Your task to perform on an android device: View the shopping cart on target. Search for "logitech g910" on target, select the first entry, and add it to the cart. Image 0: 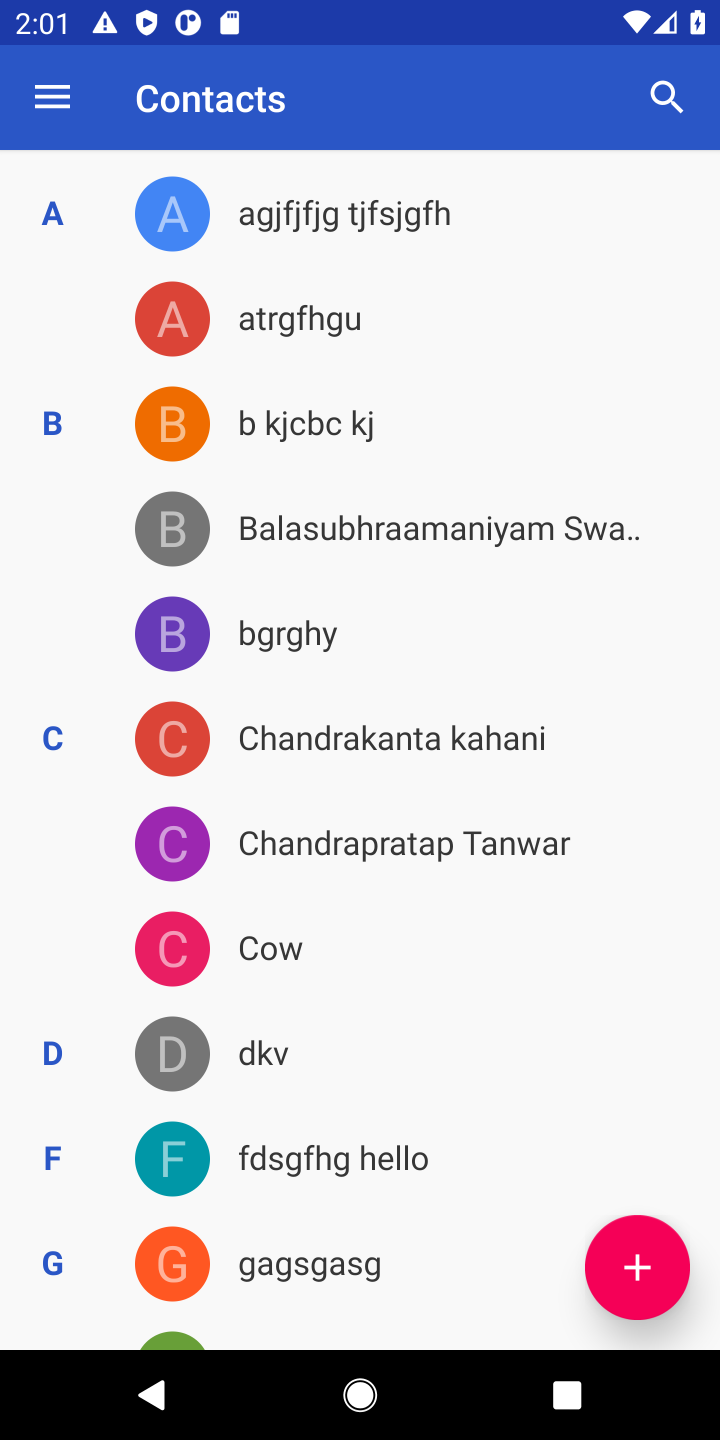
Step 0: press home button
Your task to perform on an android device: View the shopping cart on target. Search for "logitech g910" on target, select the first entry, and add it to the cart. Image 1: 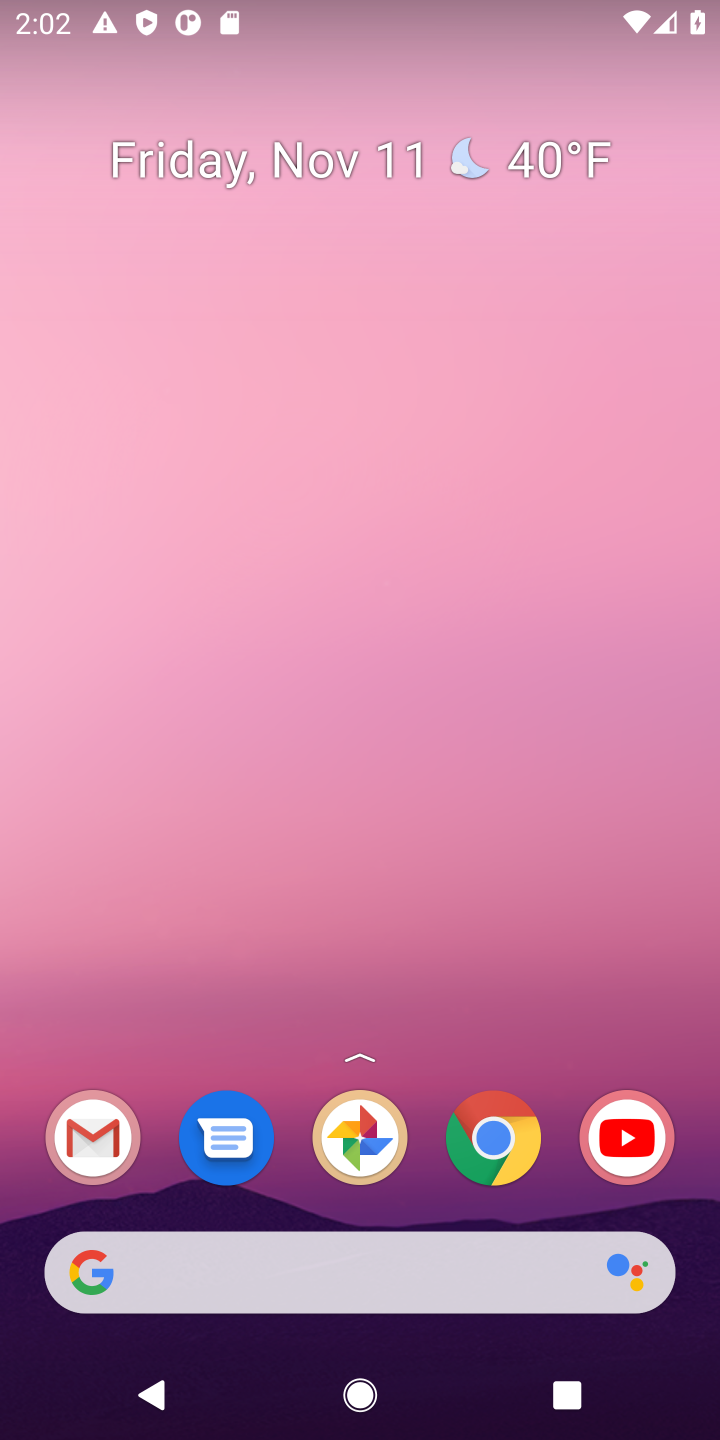
Step 1: click (472, 1145)
Your task to perform on an android device: View the shopping cart on target. Search for "logitech g910" on target, select the first entry, and add it to the cart. Image 2: 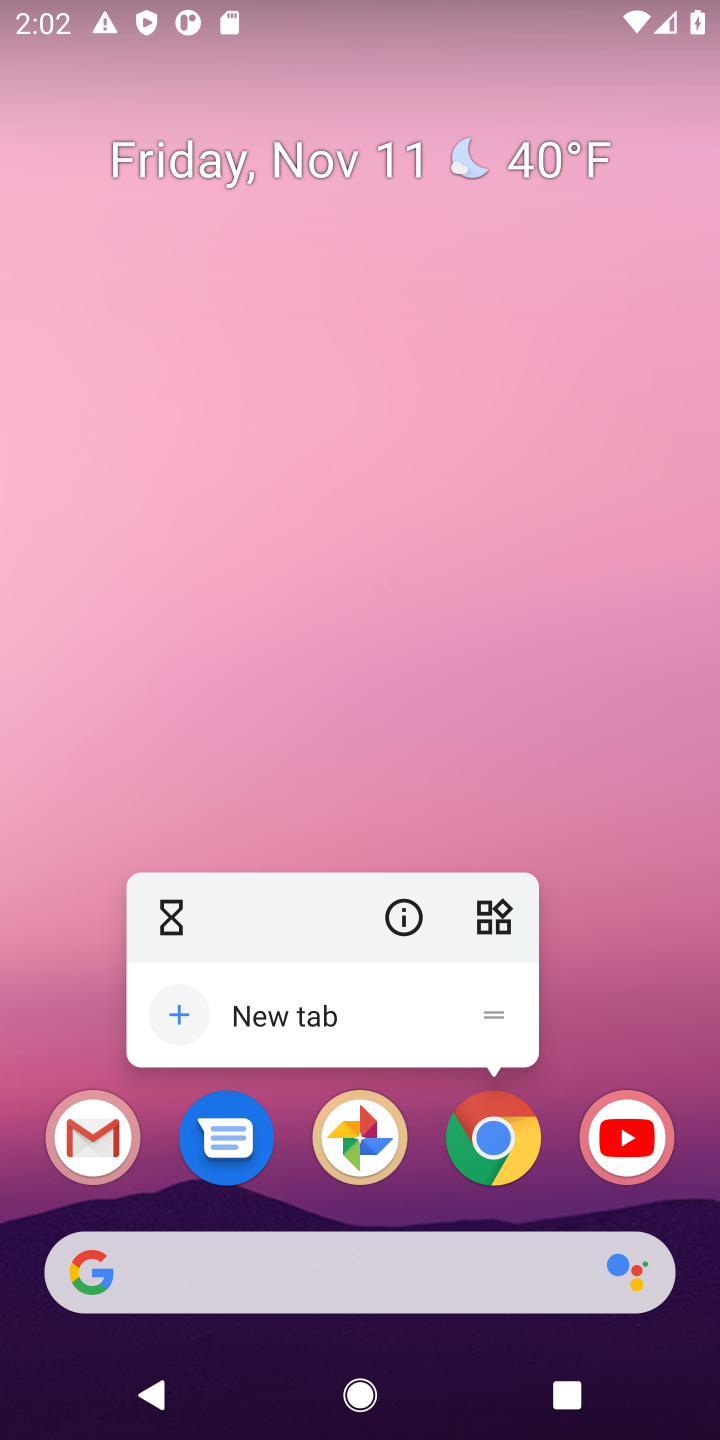
Step 2: click (472, 1145)
Your task to perform on an android device: View the shopping cart on target. Search for "logitech g910" on target, select the first entry, and add it to the cart. Image 3: 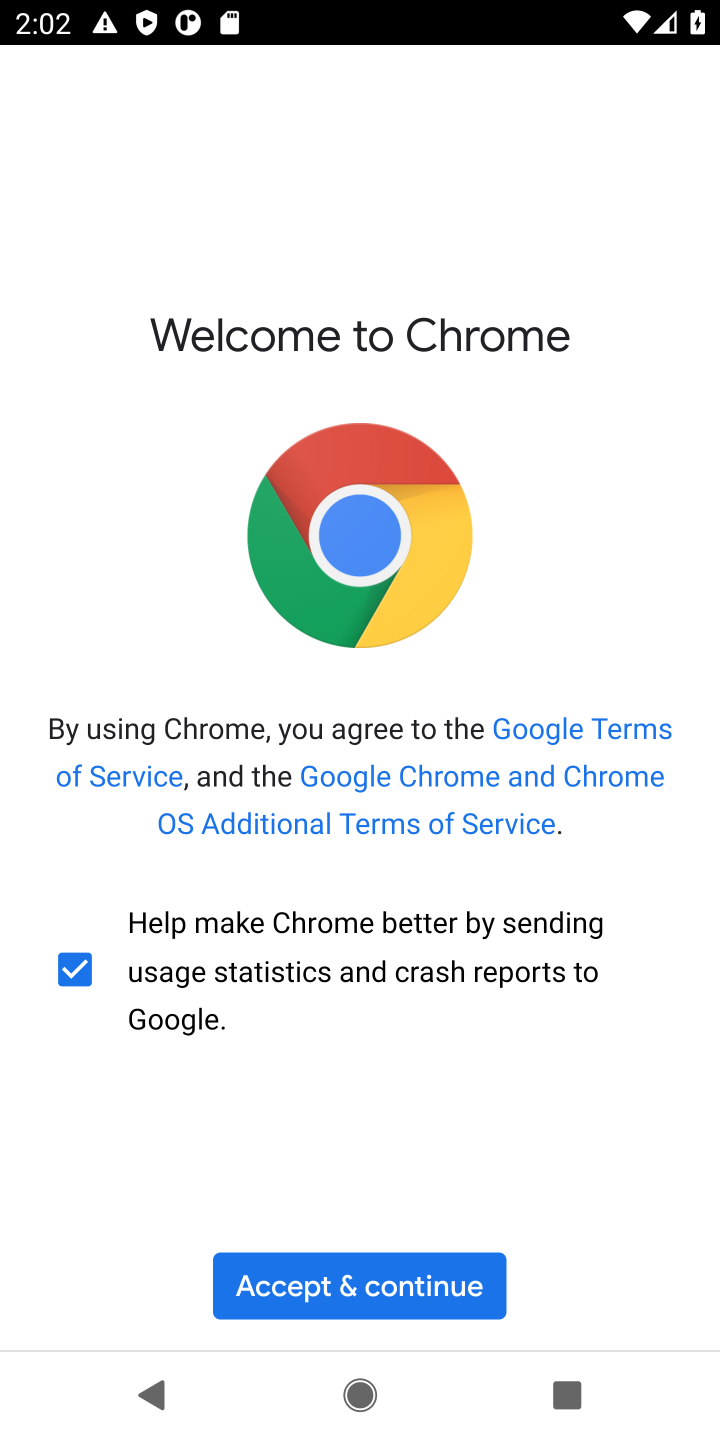
Step 3: click (472, 1145)
Your task to perform on an android device: View the shopping cart on target. Search for "logitech g910" on target, select the first entry, and add it to the cart. Image 4: 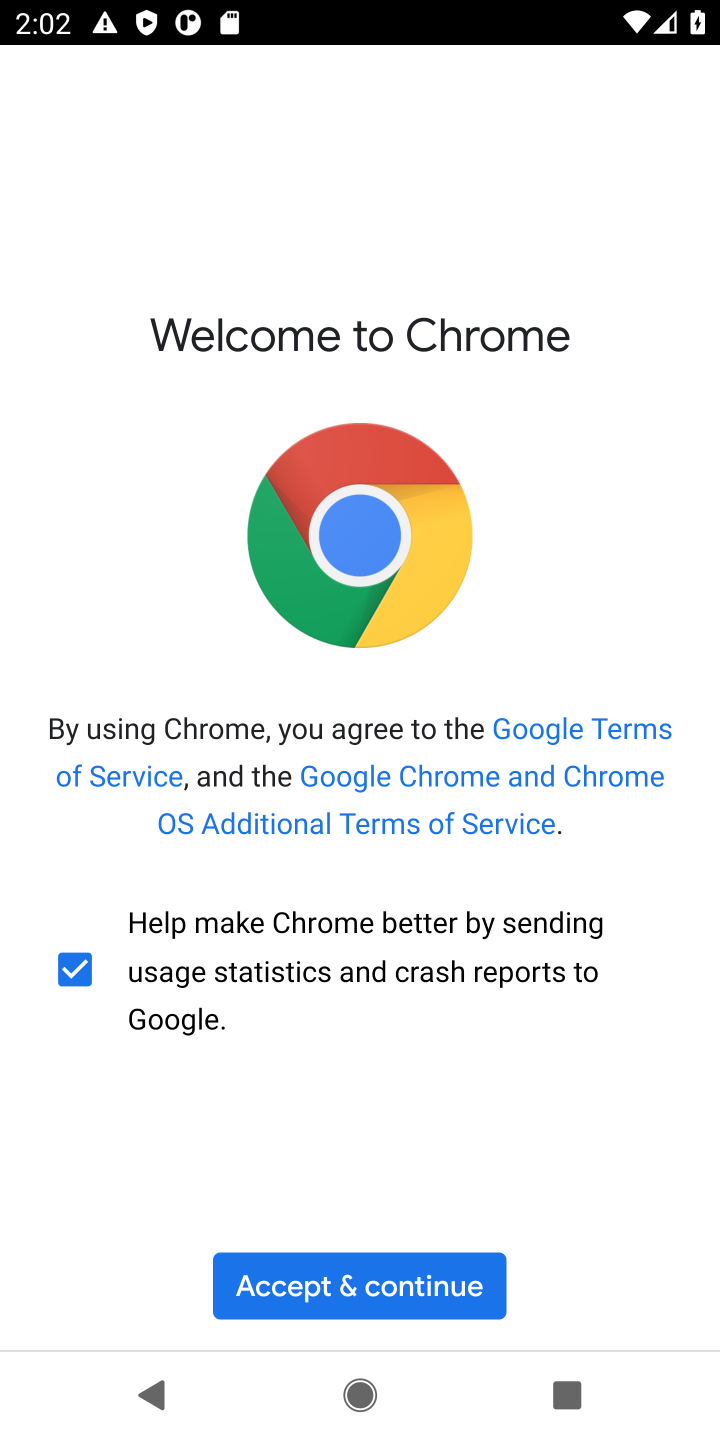
Step 4: click (403, 1292)
Your task to perform on an android device: View the shopping cart on target. Search for "logitech g910" on target, select the first entry, and add it to the cart. Image 5: 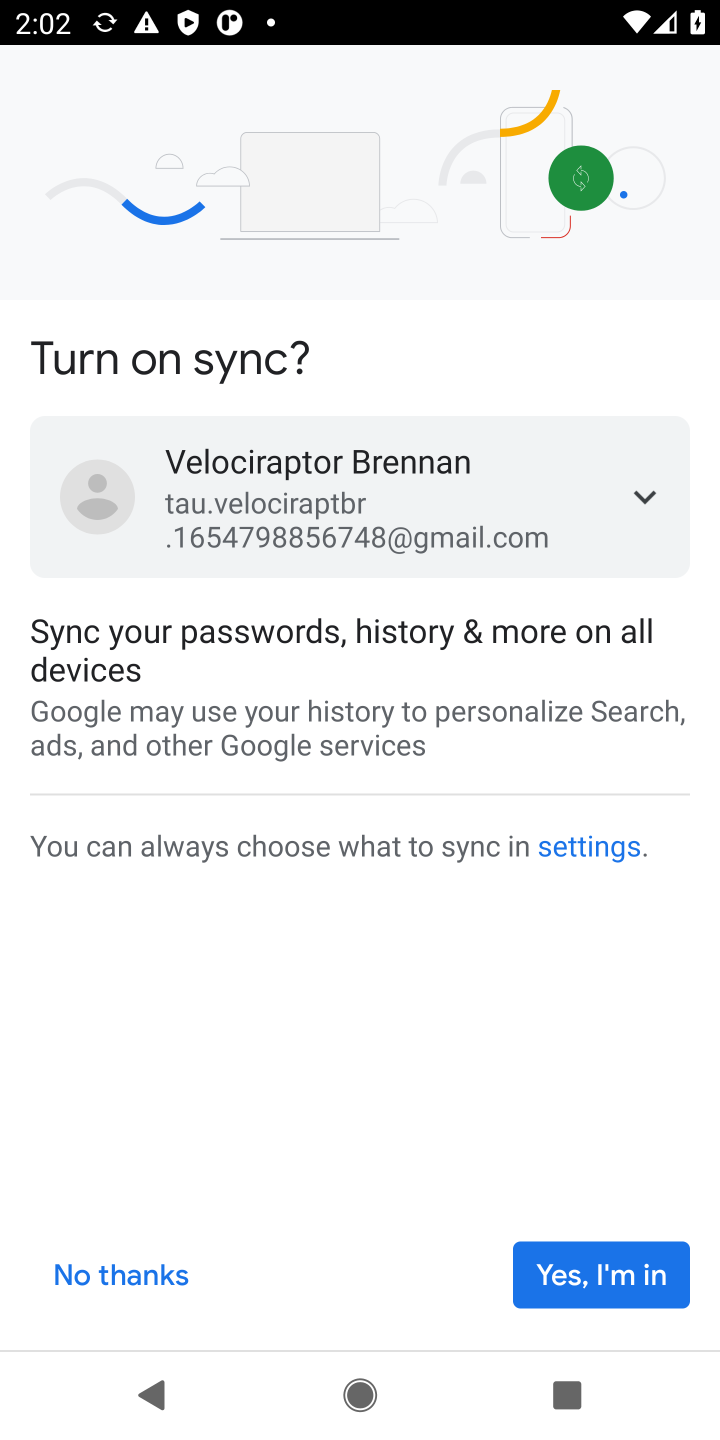
Step 5: click (640, 1268)
Your task to perform on an android device: View the shopping cart on target. Search for "logitech g910" on target, select the first entry, and add it to the cart. Image 6: 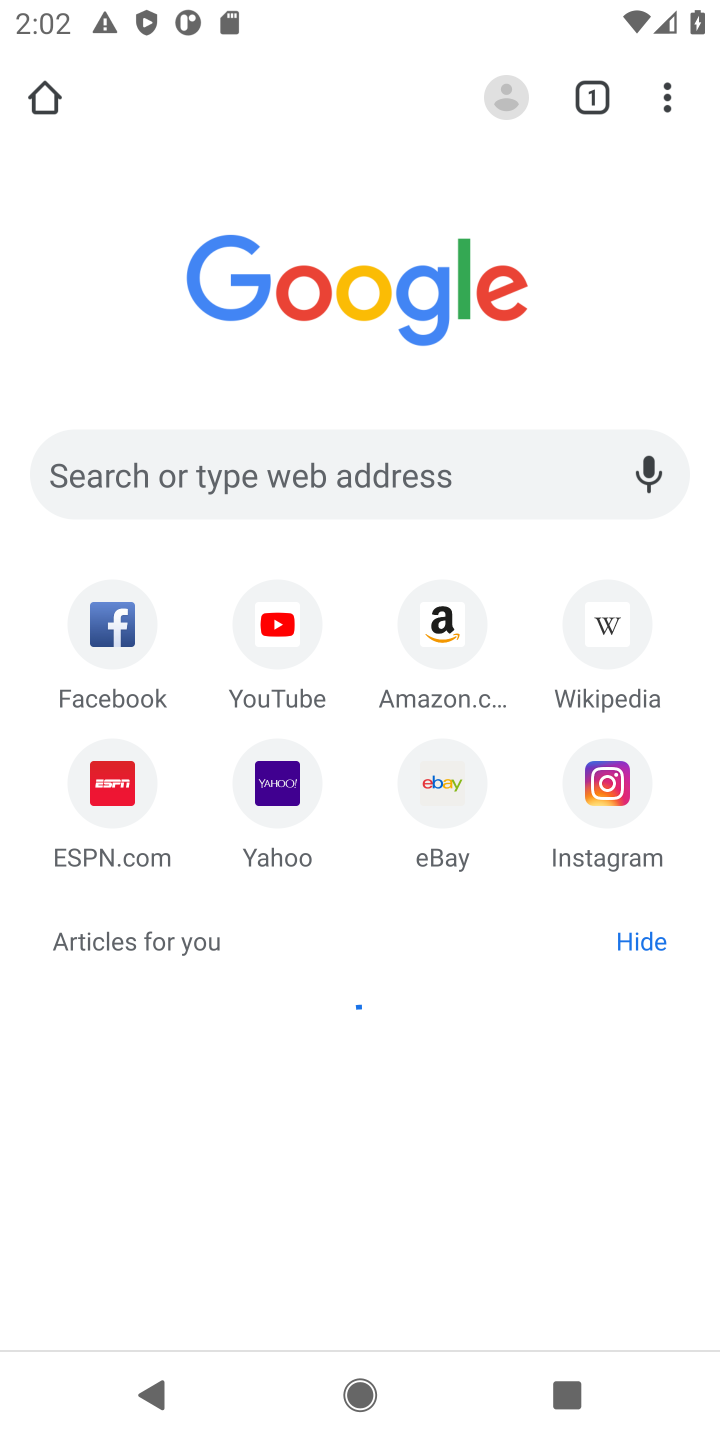
Step 6: click (420, 447)
Your task to perform on an android device: View the shopping cart on target. Search for "logitech g910" on target, select the first entry, and add it to the cart. Image 7: 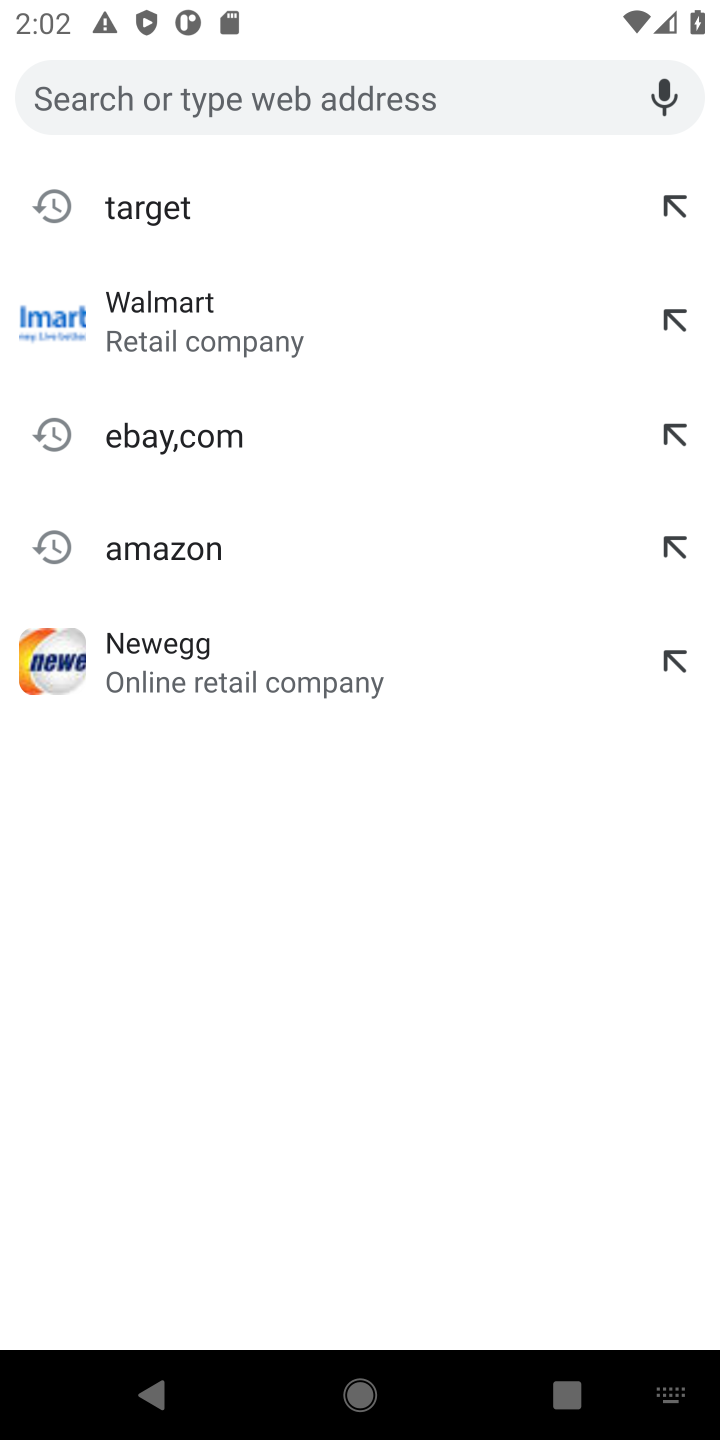
Step 7: click (165, 201)
Your task to perform on an android device: View the shopping cart on target. Search for "logitech g910" on target, select the first entry, and add it to the cart. Image 8: 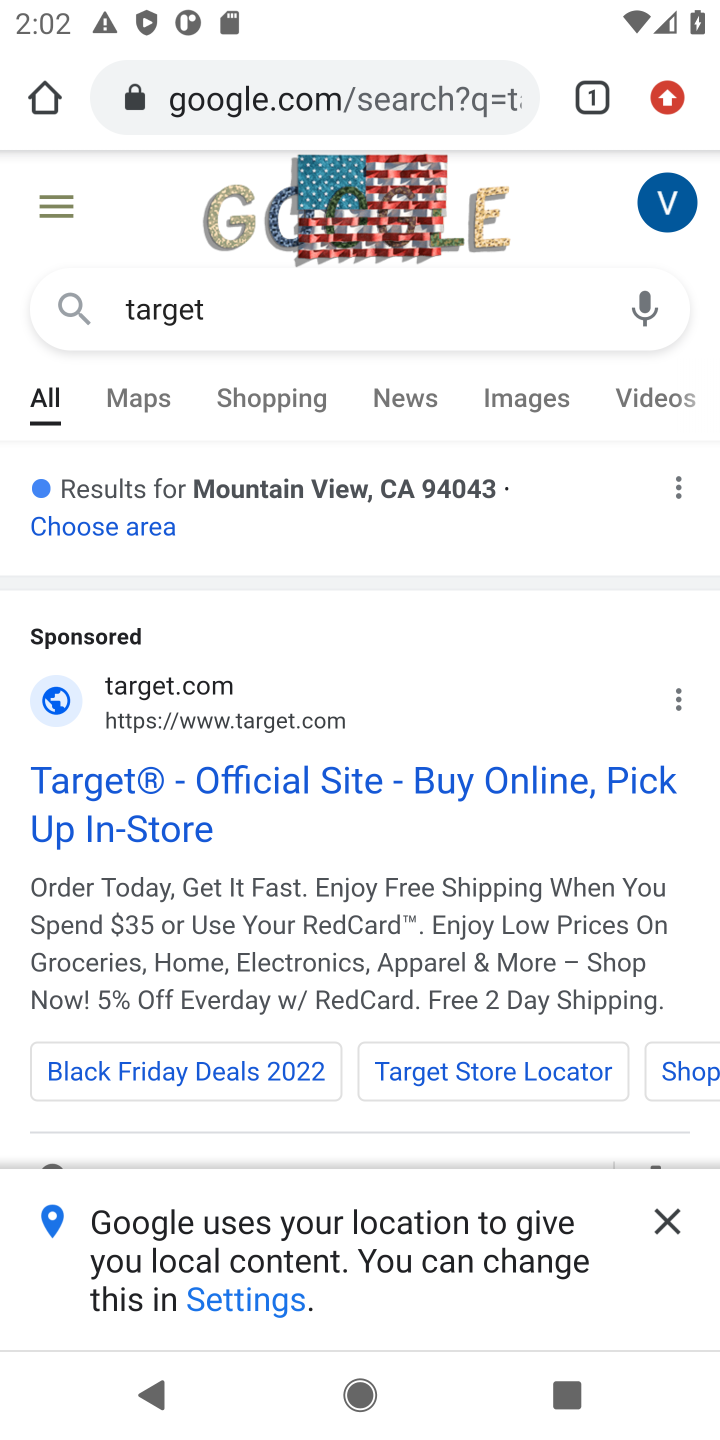
Step 8: click (285, 721)
Your task to perform on an android device: View the shopping cart on target. Search for "logitech g910" on target, select the first entry, and add it to the cart. Image 9: 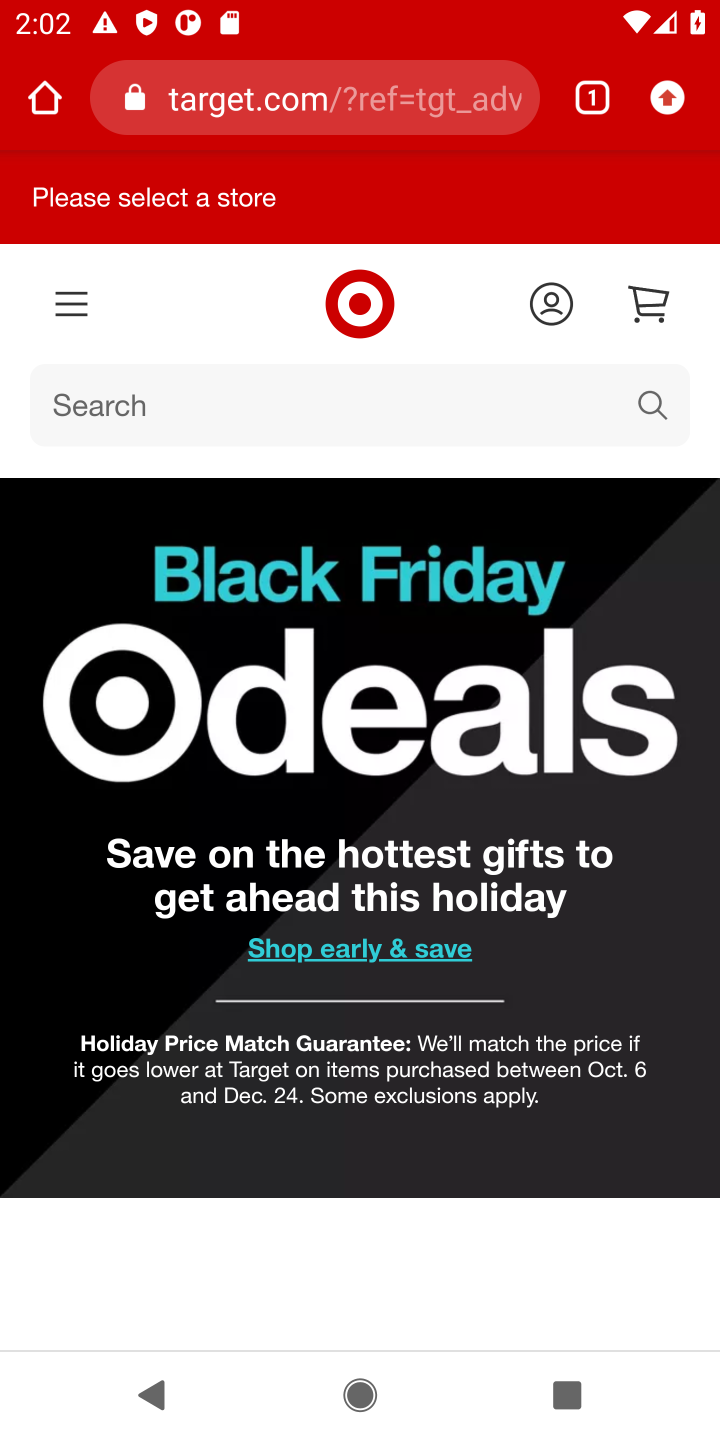
Step 9: click (642, 408)
Your task to perform on an android device: View the shopping cart on target. Search for "logitech g910" on target, select the first entry, and add it to the cart. Image 10: 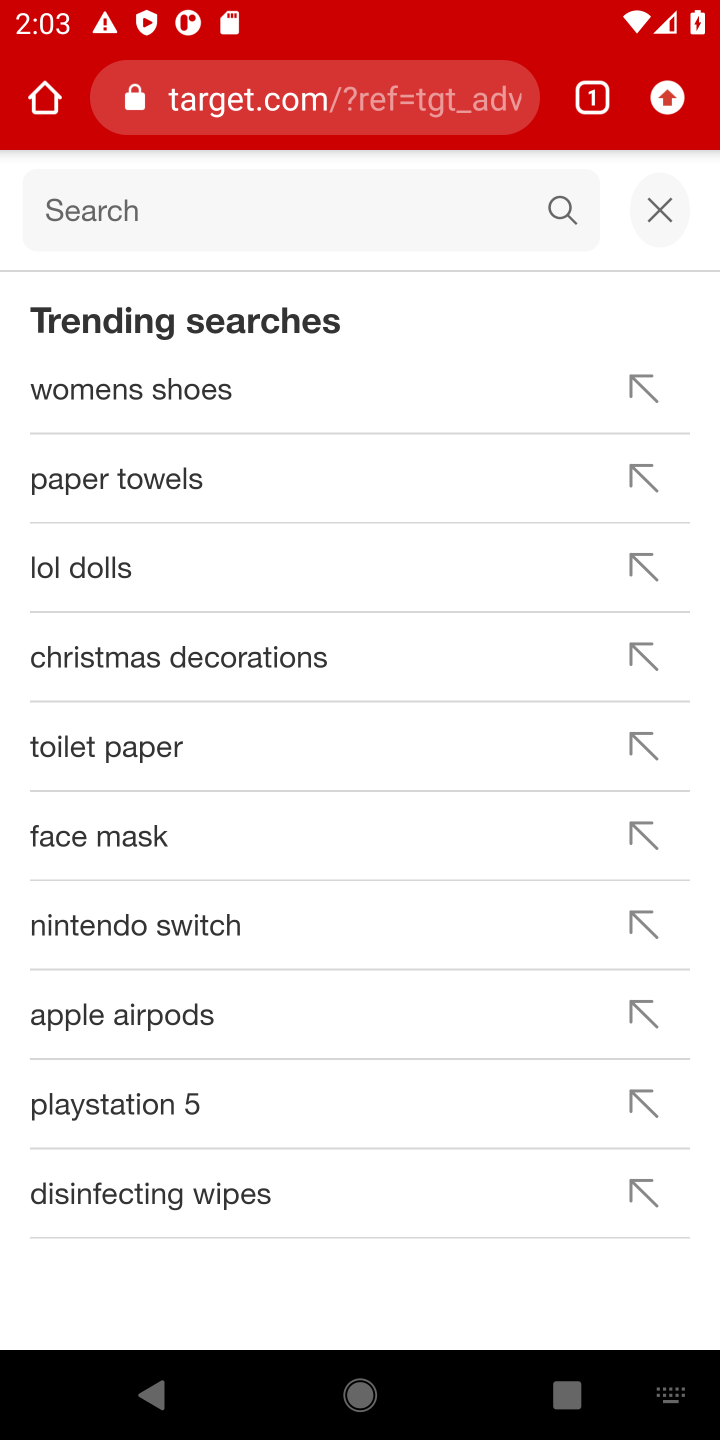
Step 10: type "logitech g910"
Your task to perform on an android device: View the shopping cart on target. Search for "logitech g910" on target, select the first entry, and add it to the cart. Image 11: 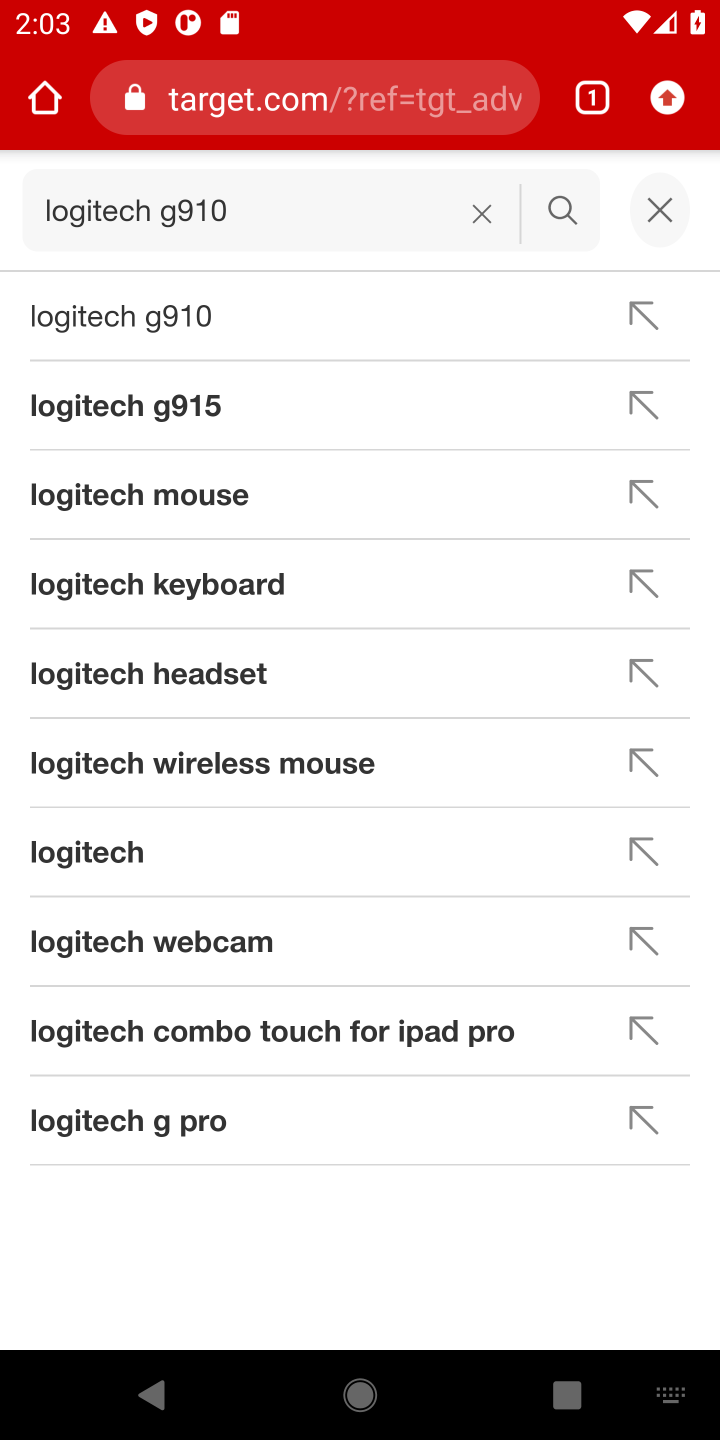
Step 11: click (174, 321)
Your task to perform on an android device: View the shopping cart on target. Search for "logitech g910" on target, select the first entry, and add it to the cart. Image 12: 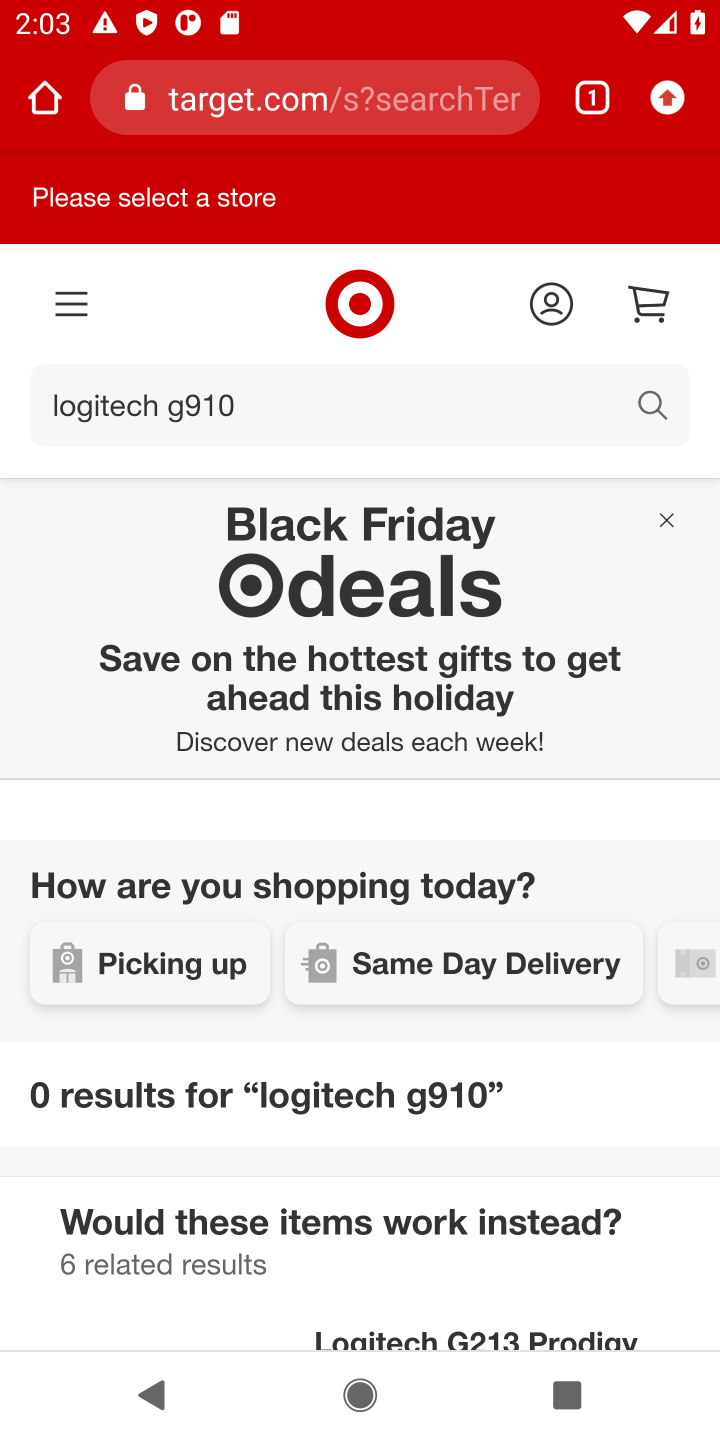
Step 12: task complete